Your task to perform on an android device: delete a single message in the gmail app Image 0: 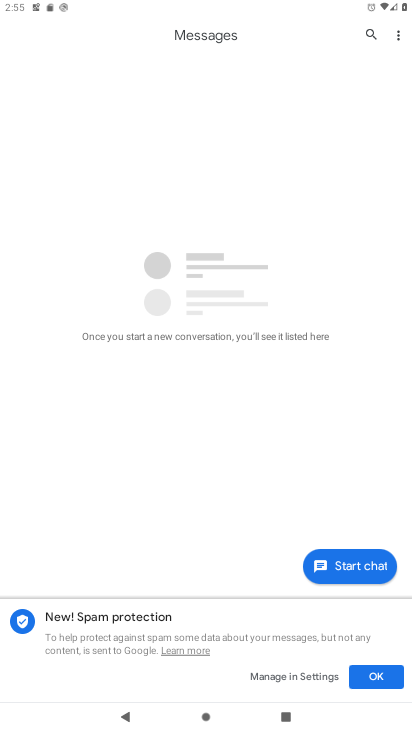
Step 0: press home button
Your task to perform on an android device: delete a single message in the gmail app Image 1: 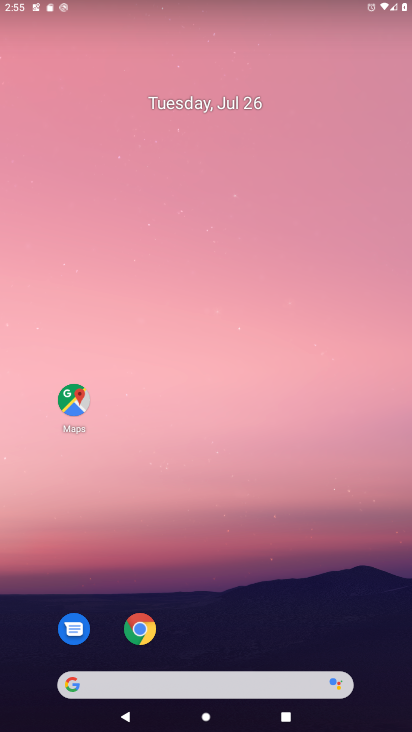
Step 1: drag from (217, 611) to (221, 147)
Your task to perform on an android device: delete a single message in the gmail app Image 2: 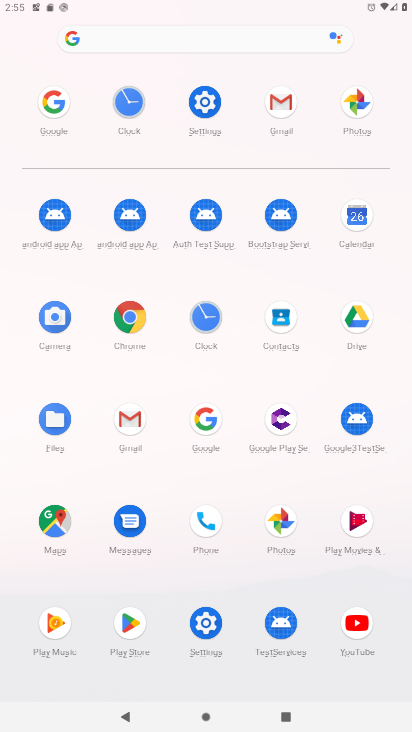
Step 2: click (294, 109)
Your task to perform on an android device: delete a single message in the gmail app Image 3: 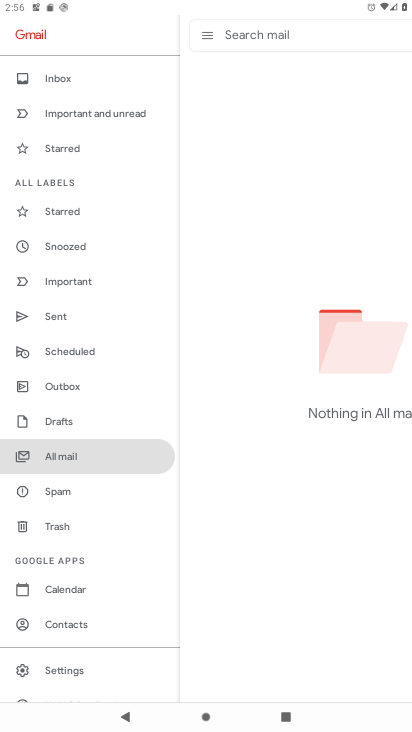
Step 3: click (100, 453)
Your task to perform on an android device: delete a single message in the gmail app Image 4: 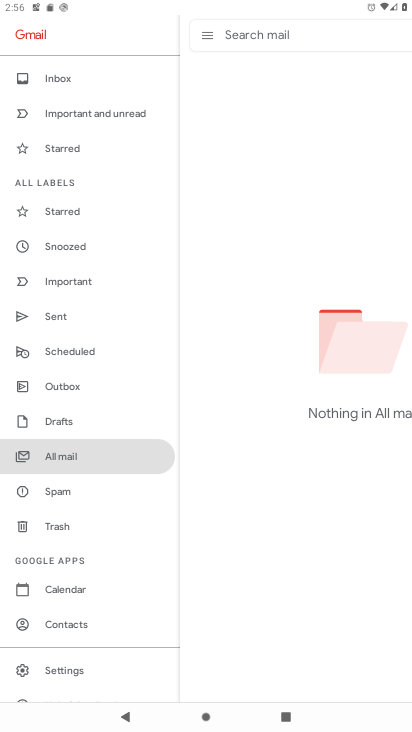
Step 4: task complete